Your task to perform on an android device: What's the weather going to be tomorrow? Image 0: 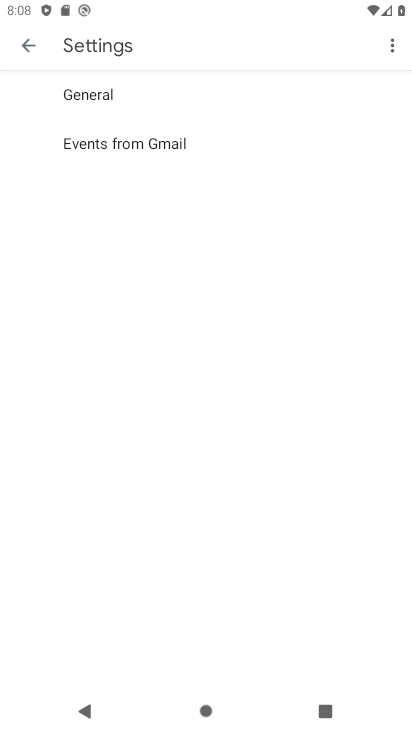
Step 0: press home button
Your task to perform on an android device: What's the weather going to be tomorrow? Image 1: 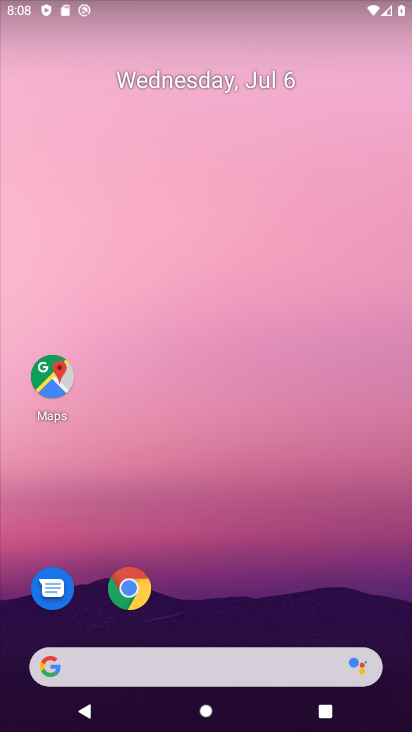
Step 1: click (210, 630)
Your task to perform on an android device: What's the weather going to be tomorrow? Image 2: 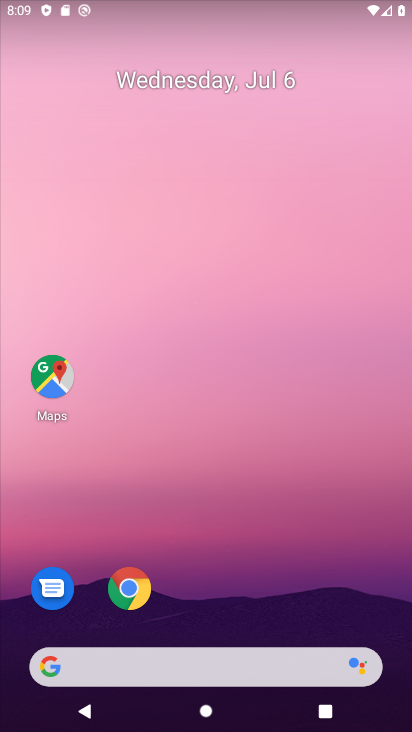
Step 2: click (180, 672)
Your task to perform on an android device: What's the weather going to be tomorrow? Image 3: 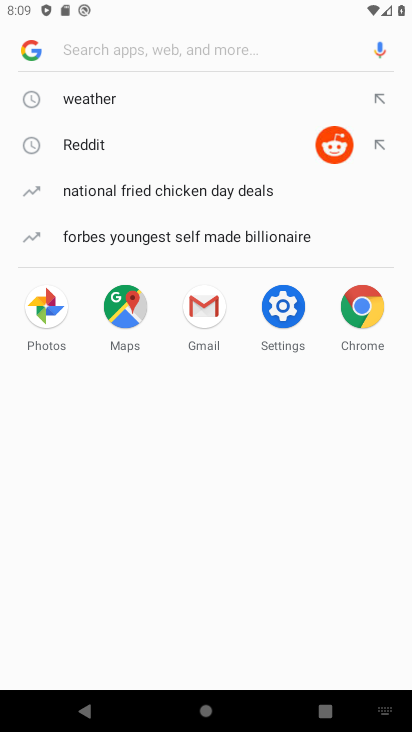
Step 3: click (108, 94)
Your task to perform on an android device: What's the weather going to be tomorrow? Image 4: 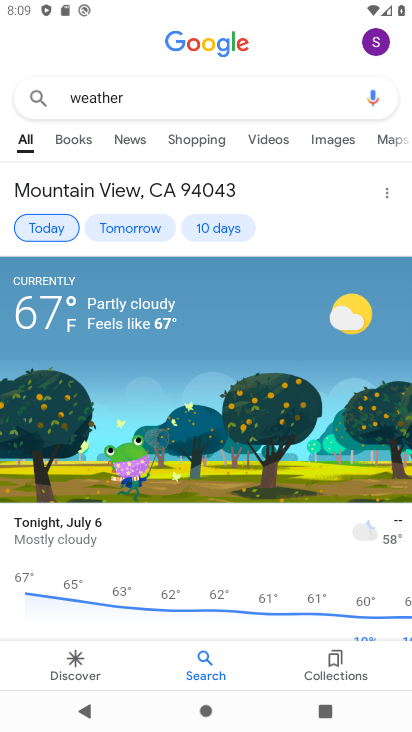
Step 4: task complete